Your task to perform on an android device: delete browsing data in the chrome app Image 0: 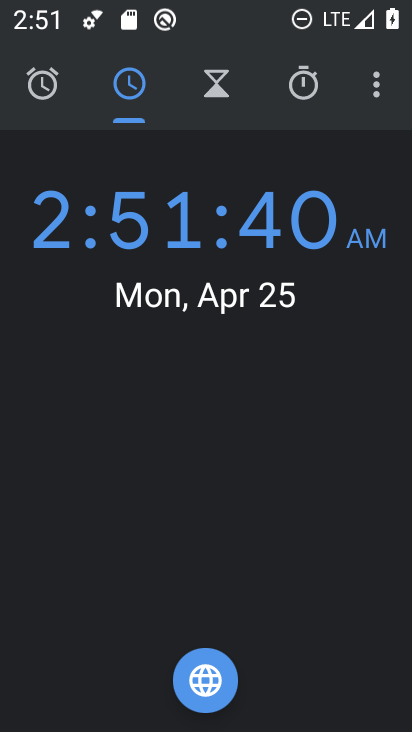
Step 0: press home button
Your task to perform on an android device: delete browsing data in the chrome app Image 1: 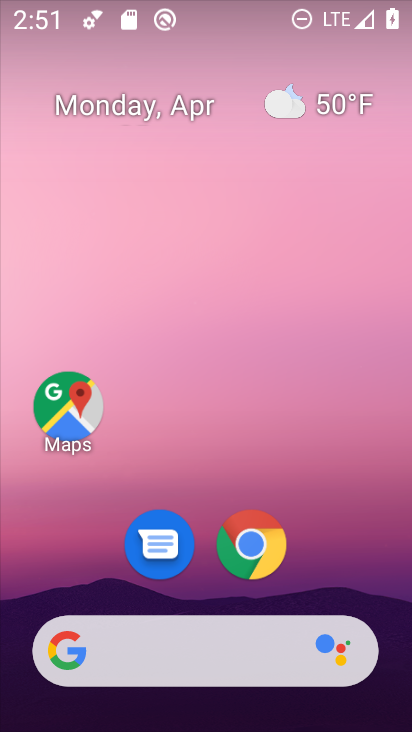
Step 1: click (268, 533)
Your task to perform on an android device: delete browsing data in the chrome app Image 2: 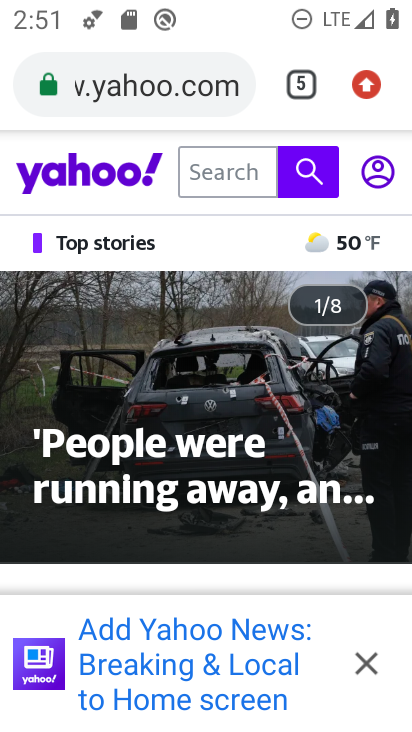
Step 2: click (361, 86)
Your task to perform on an android device: delete browsing data in the chrome app Image 3: 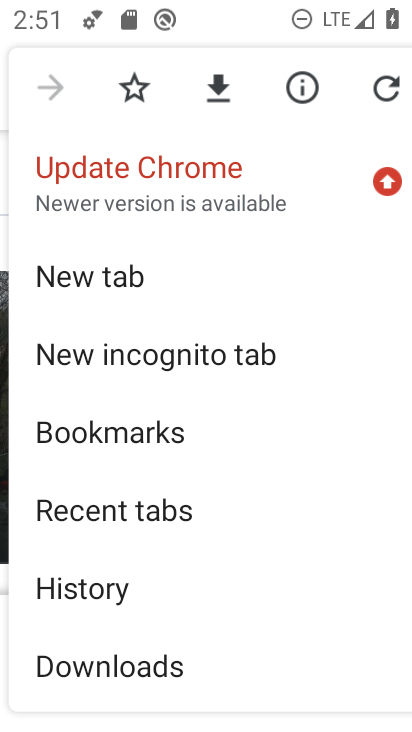
Step 3: drag from (237, 608) to (220, 445)
Your task to perform on an android device: delete browsing data in the chrome app Image 4: 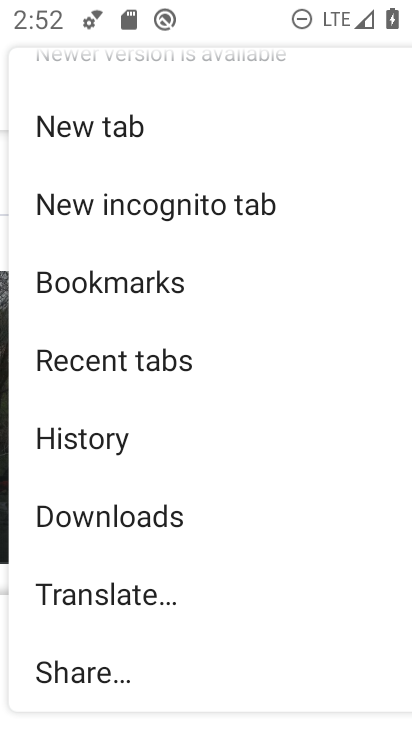
Step 4: click (152, 434)
Your task to perform on an android device: delete browsing data in the chrome app Image 5: 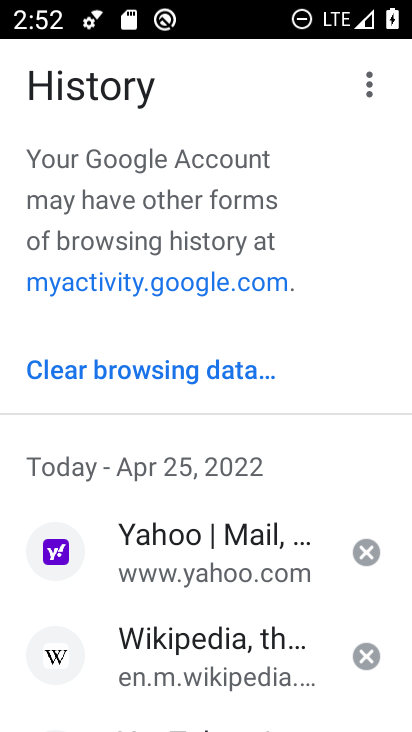
Step 5: click (171, 368)
Your task to perform on an android device: delete browsing data in the chrome app Image 6: 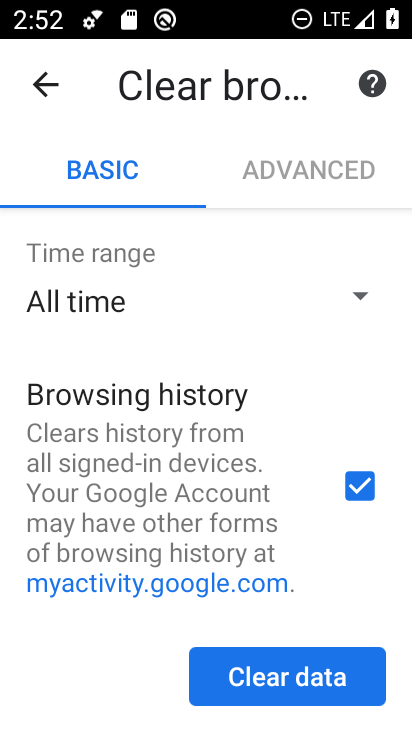
Step 6: click (312, 667)
Your task to perform on an android device: delete browsing data in the chrome app Image 7: 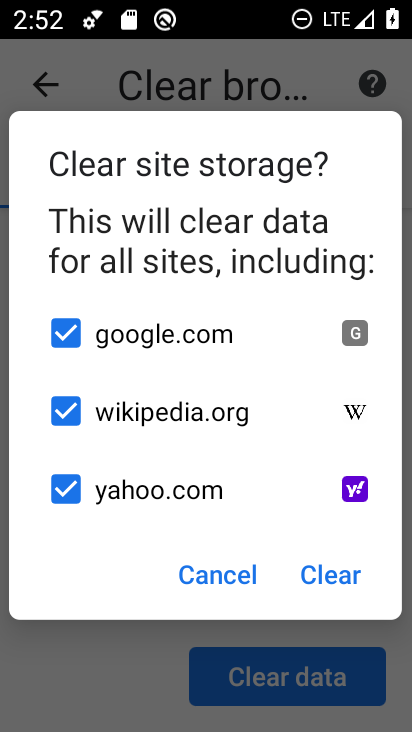
Step 7: click (330, 574)
Your task to perform on an android device: delete browsing data in the chrome app Image 8: 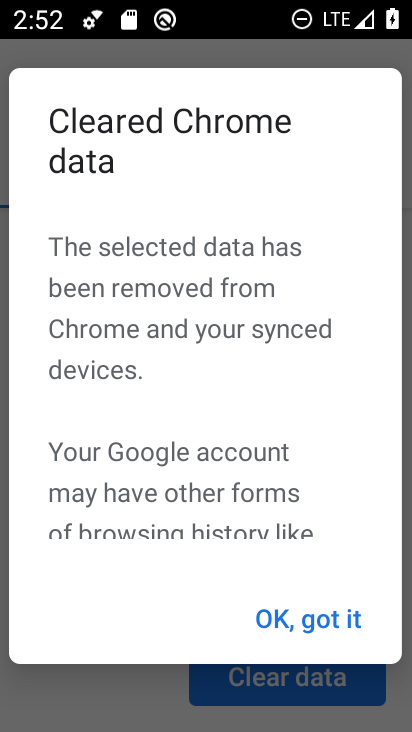
Step 8: click (320, 614)
Your task to perform on an android device: delete browsing data in the chrome app Image 9: 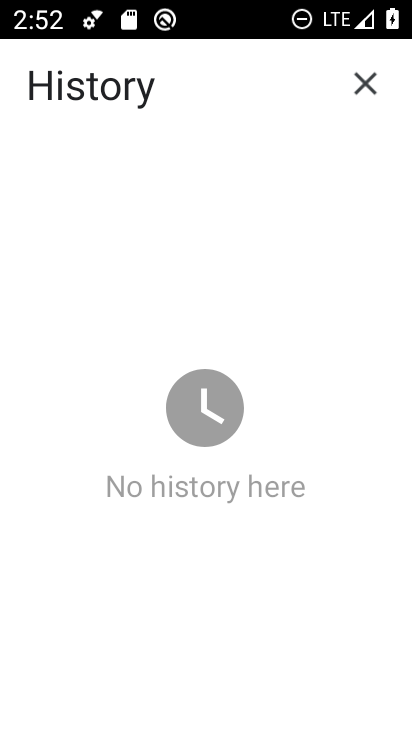
Step 9: task complete